Your task to perform on an android device: Open network settings Image 0: 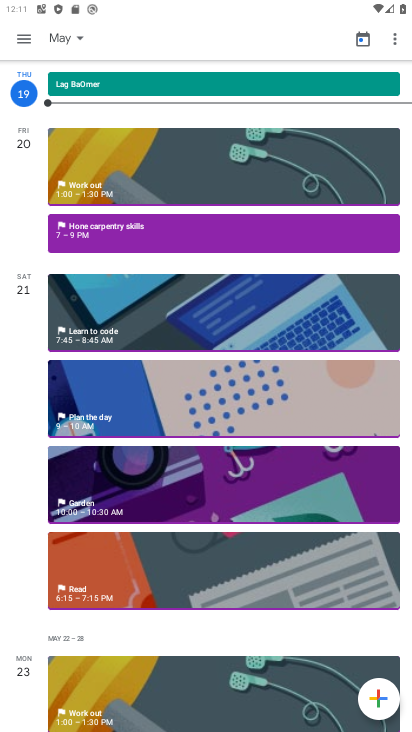
Step 0: press home button
Your task to perform on an android device: Open network settings Image 1: 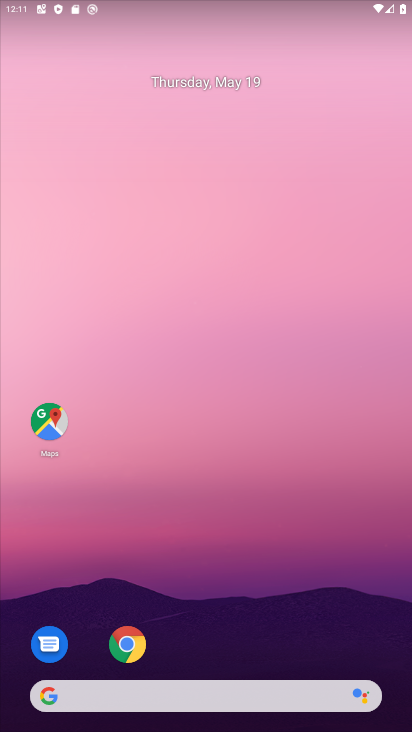
Step 1: drag from (368, 626) to (356, 199)
Your task to perform on an android device: Open network settings Image 2: 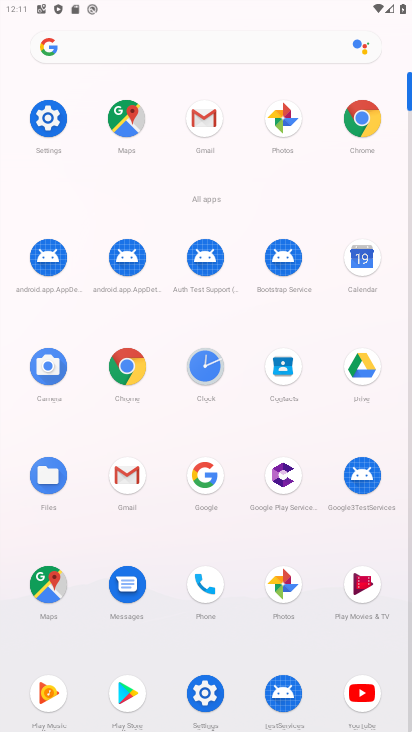
Step 2: click (206, 690)
Your task to perform on an android device: Open network settings Image 3: 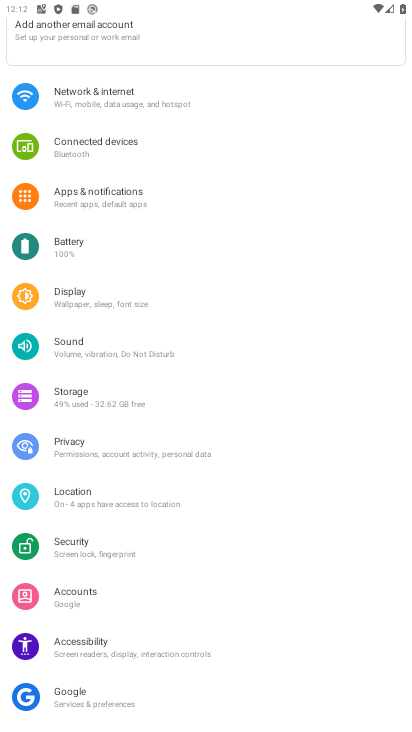
Step 3: click (182, 102)
Your task to perform on an android device: Open network settings Image 4: 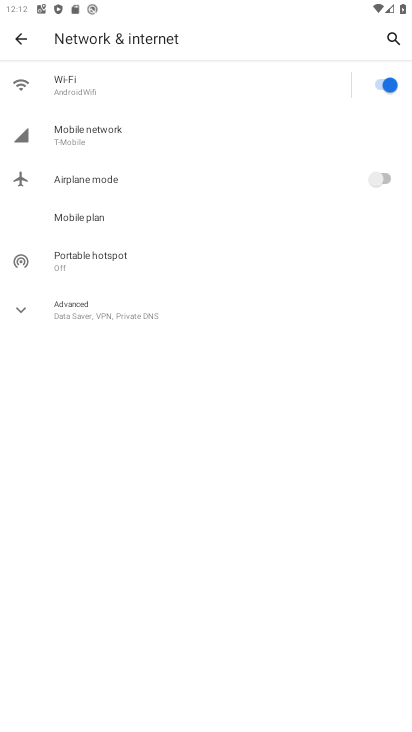
Step 4: click (183, 121)
Your task to perform on an android device: Open network settings Image 5: 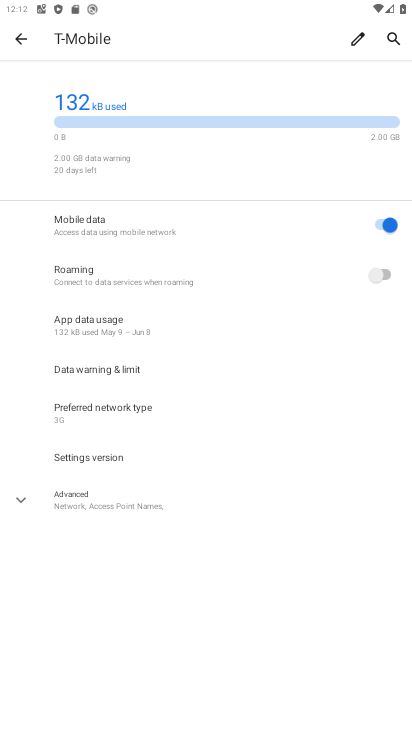
Step 5: task complete